Your task to perform on an android device: see sites visited before in the chrome app Image 0: 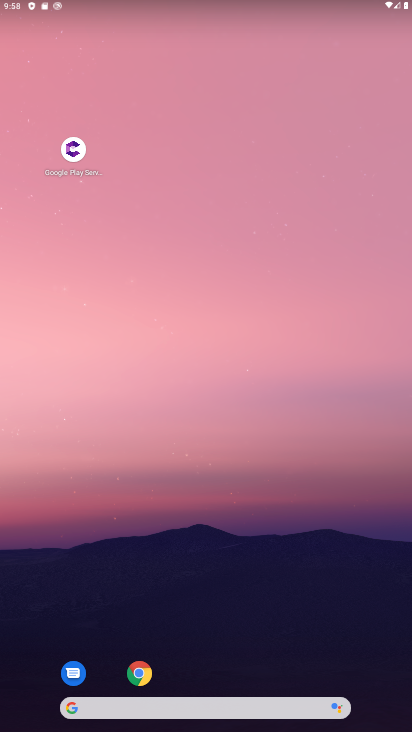
Step 0: click (142, 677)
Your task to perform on an android device: see sites visited before in the chrome app Image 1: 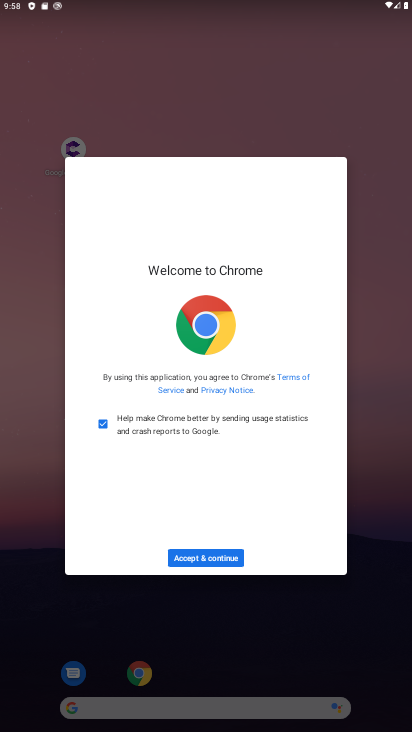
Step 1: click (206, 555)
Your task to perform on an android device: see sites visited before in the chrome app Image 2: 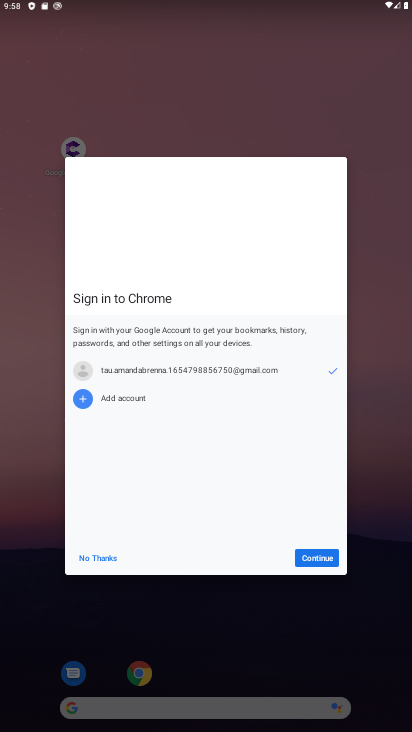
Step 2: click (320, 559)
Your task to perform on an android device: see sites visited before in the chrome app Image 3: 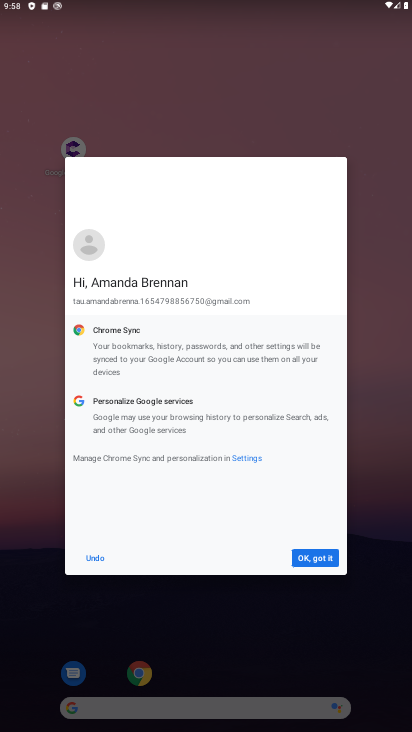
Step 3: click (320, 559)
Your task to perform on an android device: see sites visited before in the chrome app Image 4: 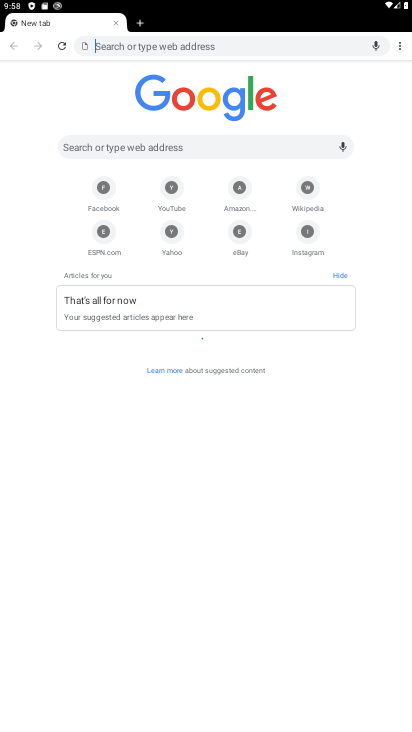
Step 4: click (399, 42)
Your task to perform on an android device: see sites visited before in the chrome app Image 5: 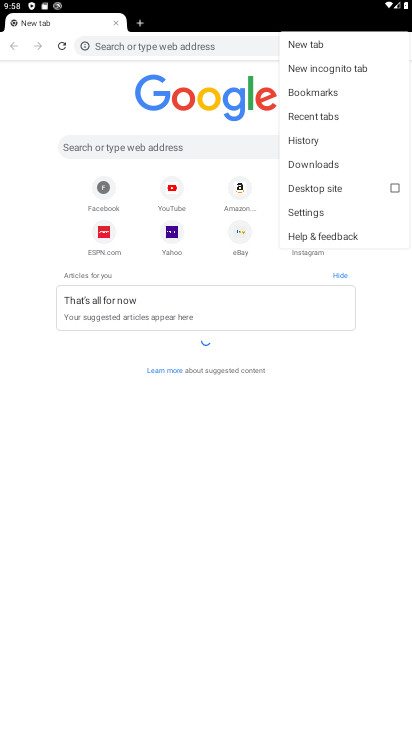
Step 5: click (312, 141)
Your task to perform on an android device: see sites visited before in the chrome app Image 6: 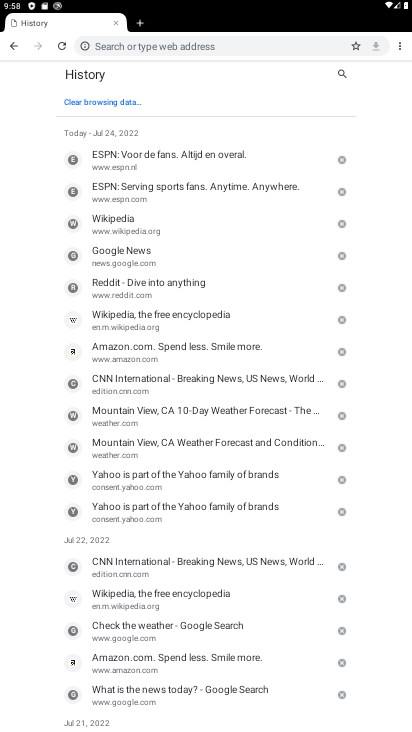
Step 6: task complete